Your task to perform on an android device: Go to Maps Image 0: 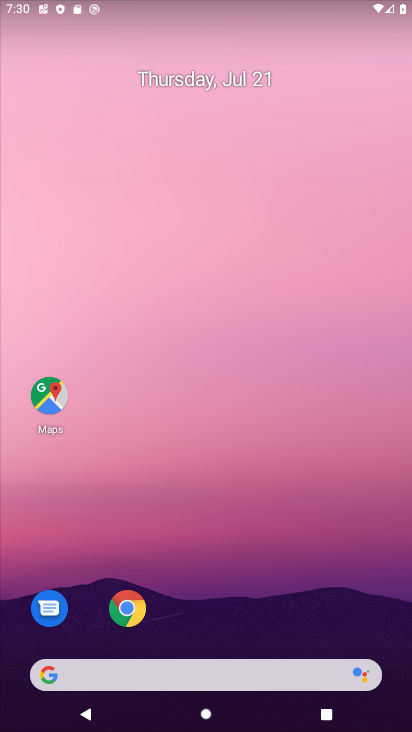
Step 0: drag from (223, 672) to (284, 226)
Your task to perform on an android device: Go to Maps Image 1: 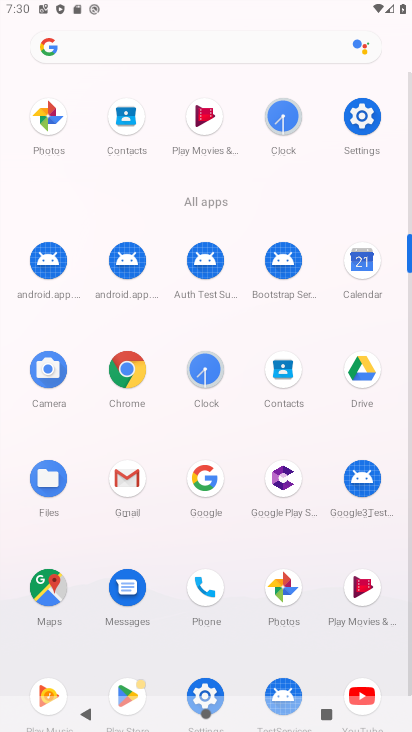
Step 1: click (48, 587)
Your task to perform on an android device: Go to Maps Image 2: 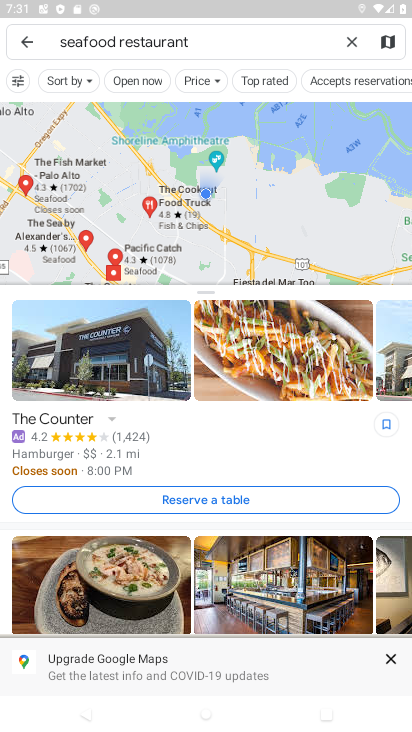
Step 2: click (354, 39)
Your task to perform on an android device: Go to Maps Image 3: 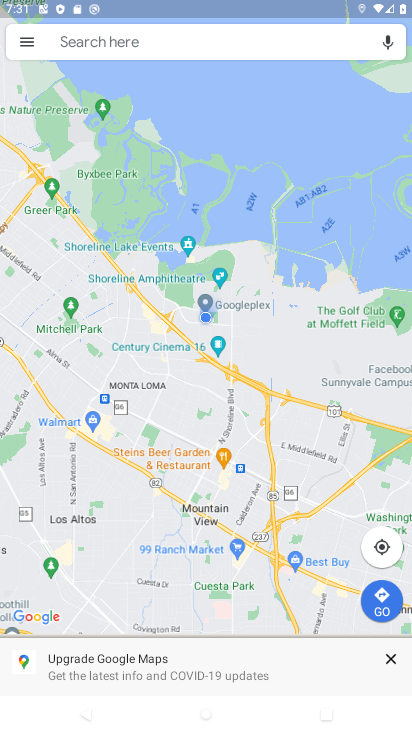
Step 3: task complete